Your task to perform on an android device: Go to sound settings Image 0: 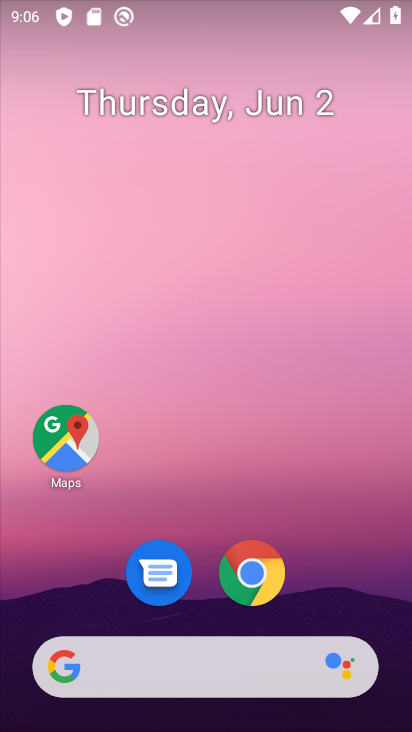
Step 0: drag from (361, 556) to (241, 135)
Your task to perform on an android device: Go to sound settings Image 1: 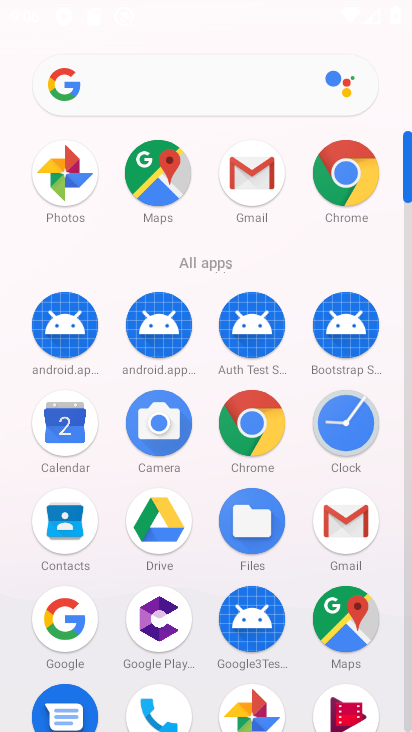
Step 1: drag from (281, 458) to (324, 161)
Your task to perform on an android device: Go to sound settings Image 2: 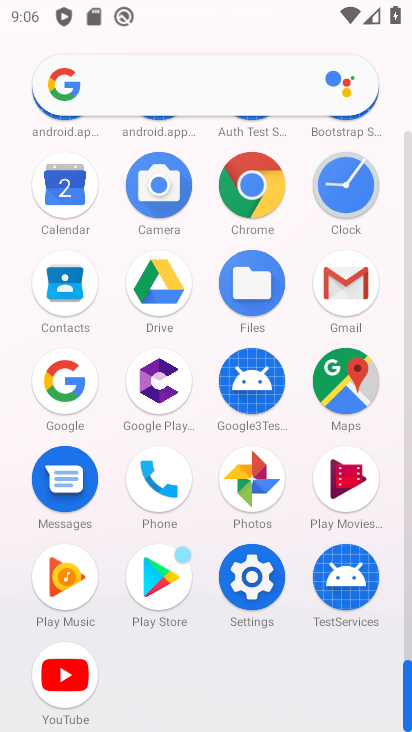
Step 2: click (249, 576)
Your task to perform on an android device: Go to sound settings Image 3: 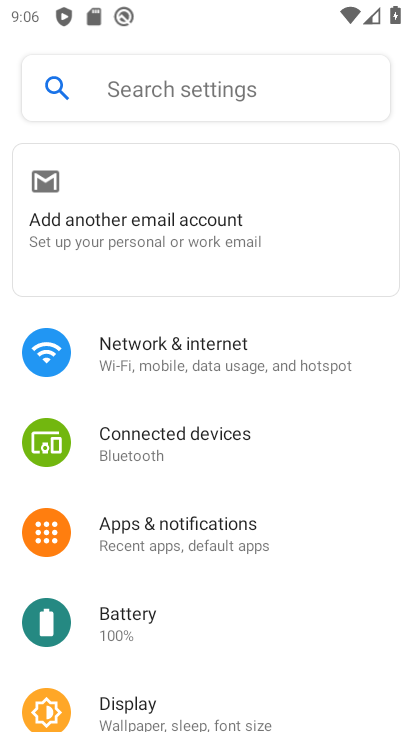
Step 3: drag from (228, 664) to (242, 266)
Your task to perform on an android device: Go to sound settings Image 4: 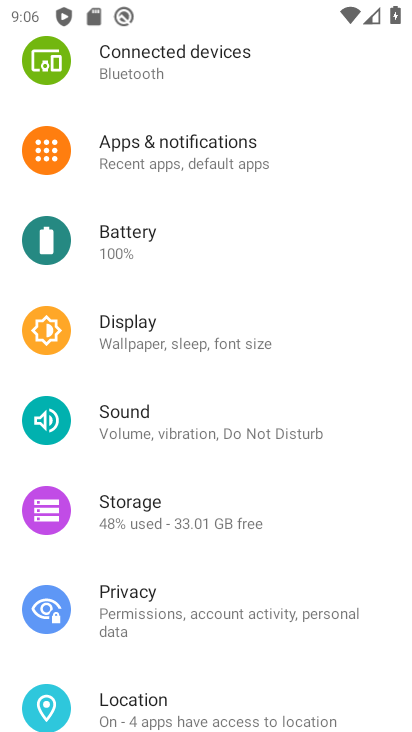
Step 4: click (172, 430)
Your task to perform on an android device: Go to sound settings Image 5: 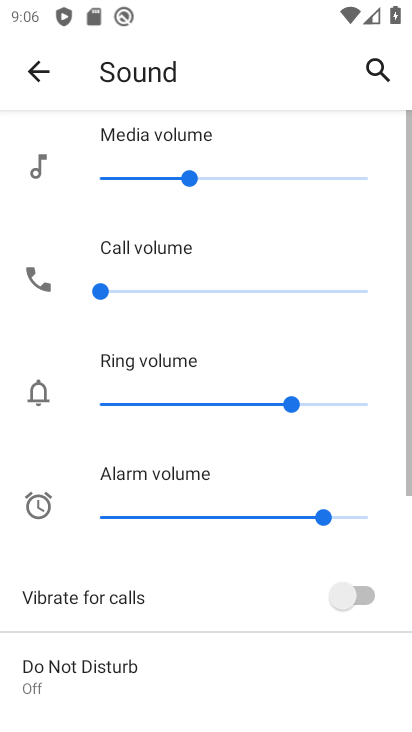
Step 5: task complete